Your task to perform on an android device: open the mobile data screen to see how much data has been used Image 0: 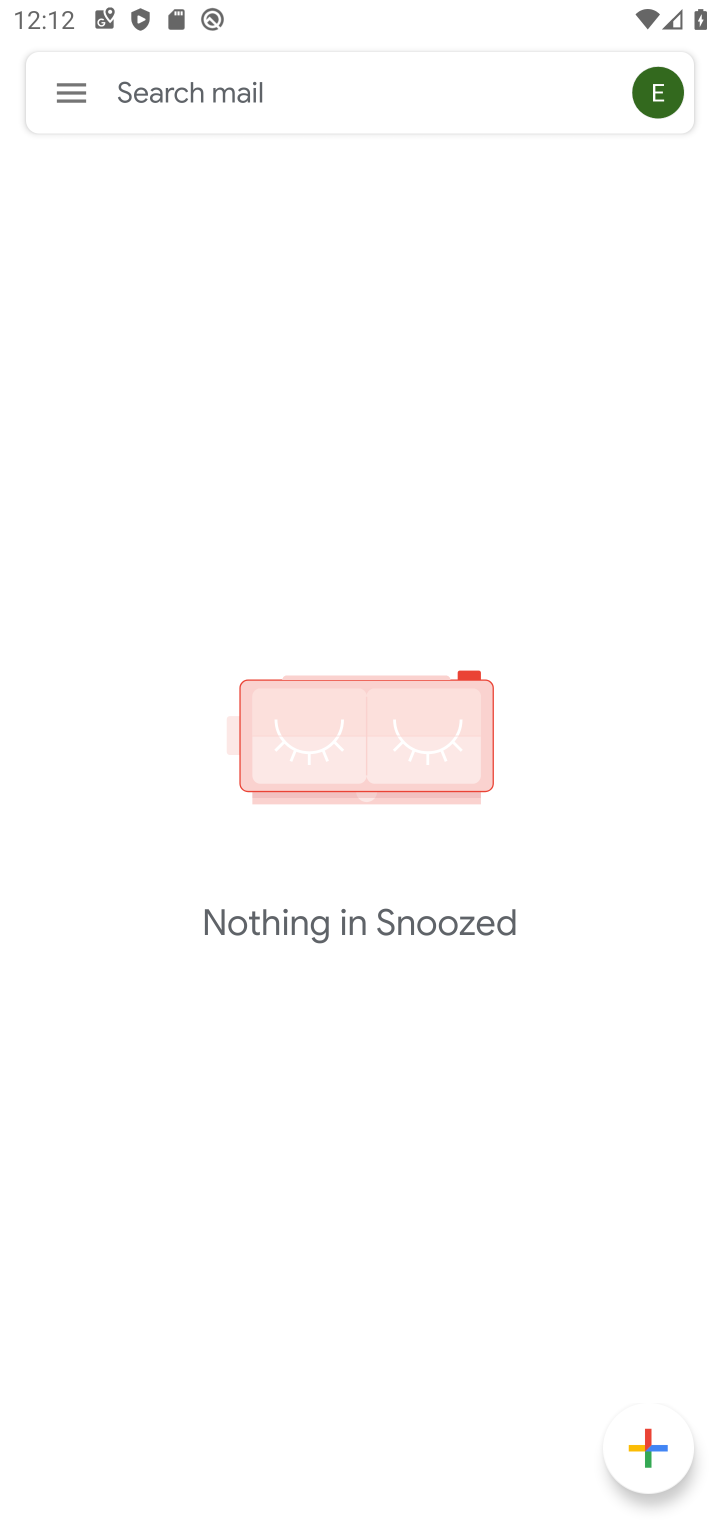
Step 0: press back button
Your task to perform on an android device: open the mobile data screen to see how much data has been used Image 1: 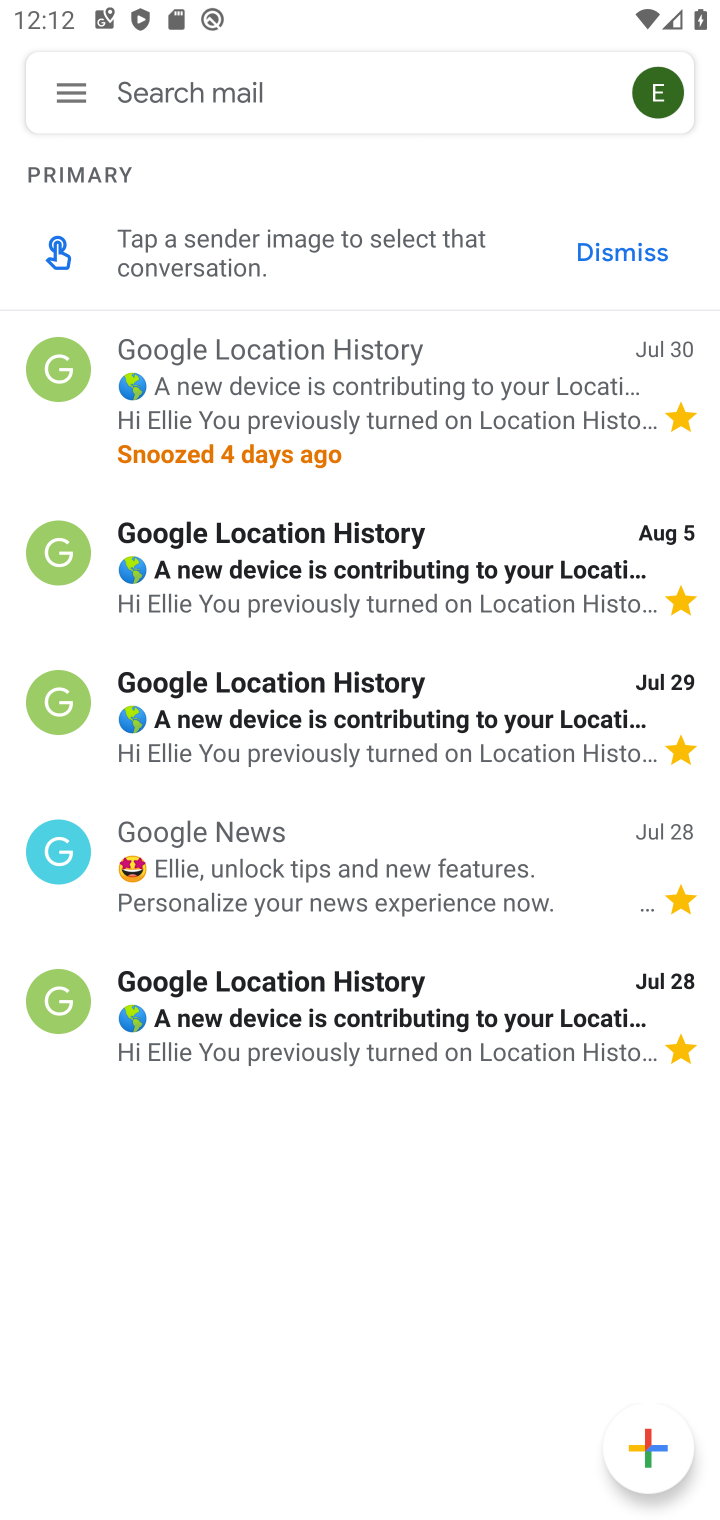
Step 1: press back button
Your task to perform on an android device: open the mobile data screen to see how much data has been used Image 2: 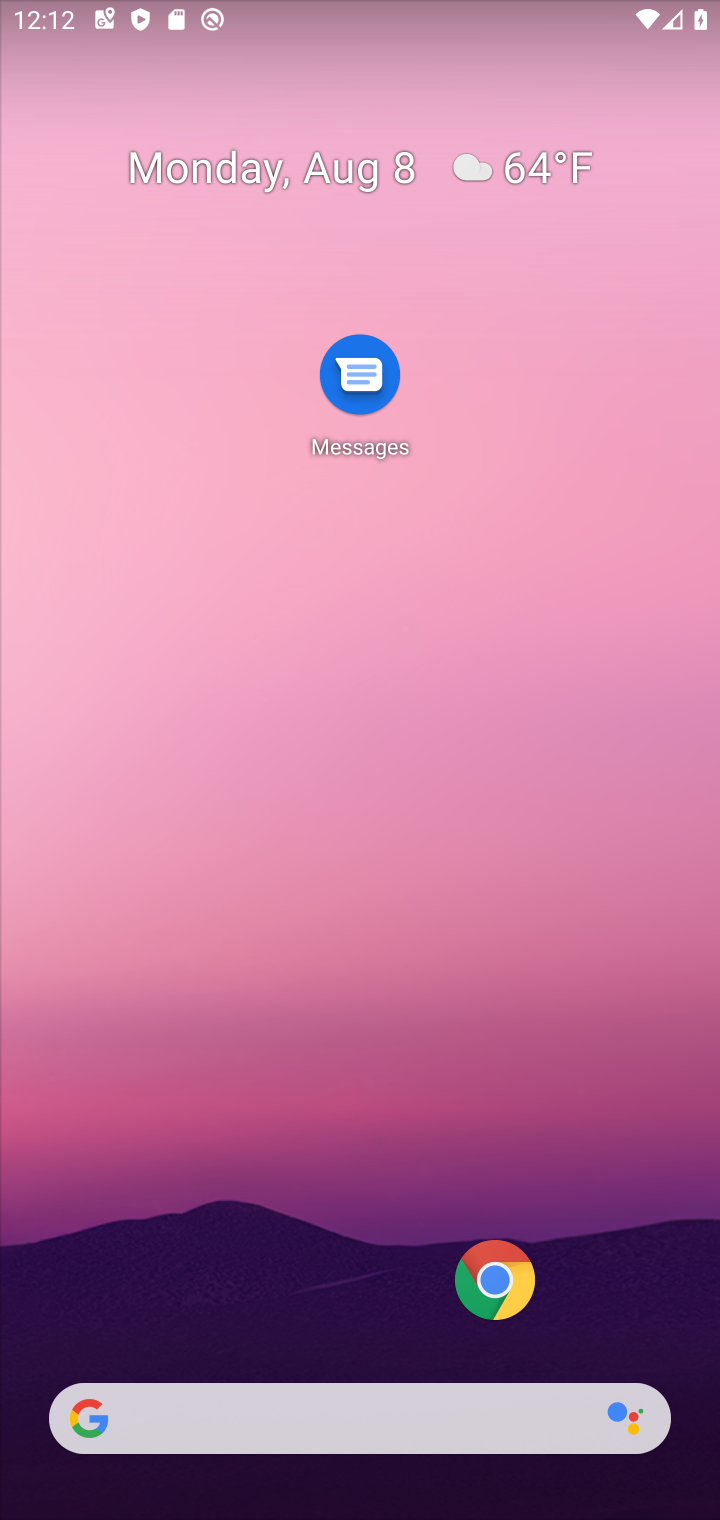
Step 2: drag from (267, 1187) to (436, 294)
Your task to perform on an android device: open the mobile data screen to see how much data has been used Image 3: 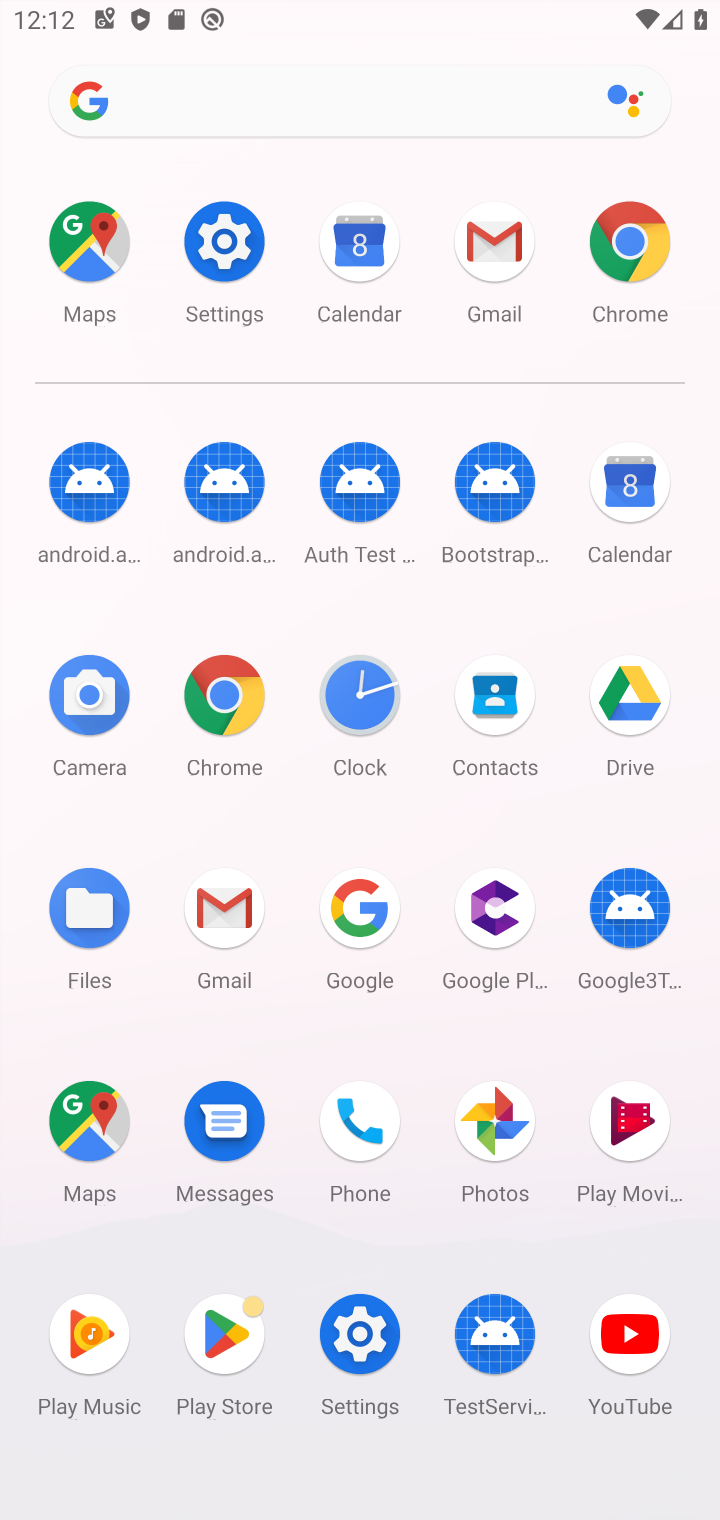
Step 3: click (236, 246)
Your task to perform on an android device: open the mobile data screen to see how much data has been used Image 4: 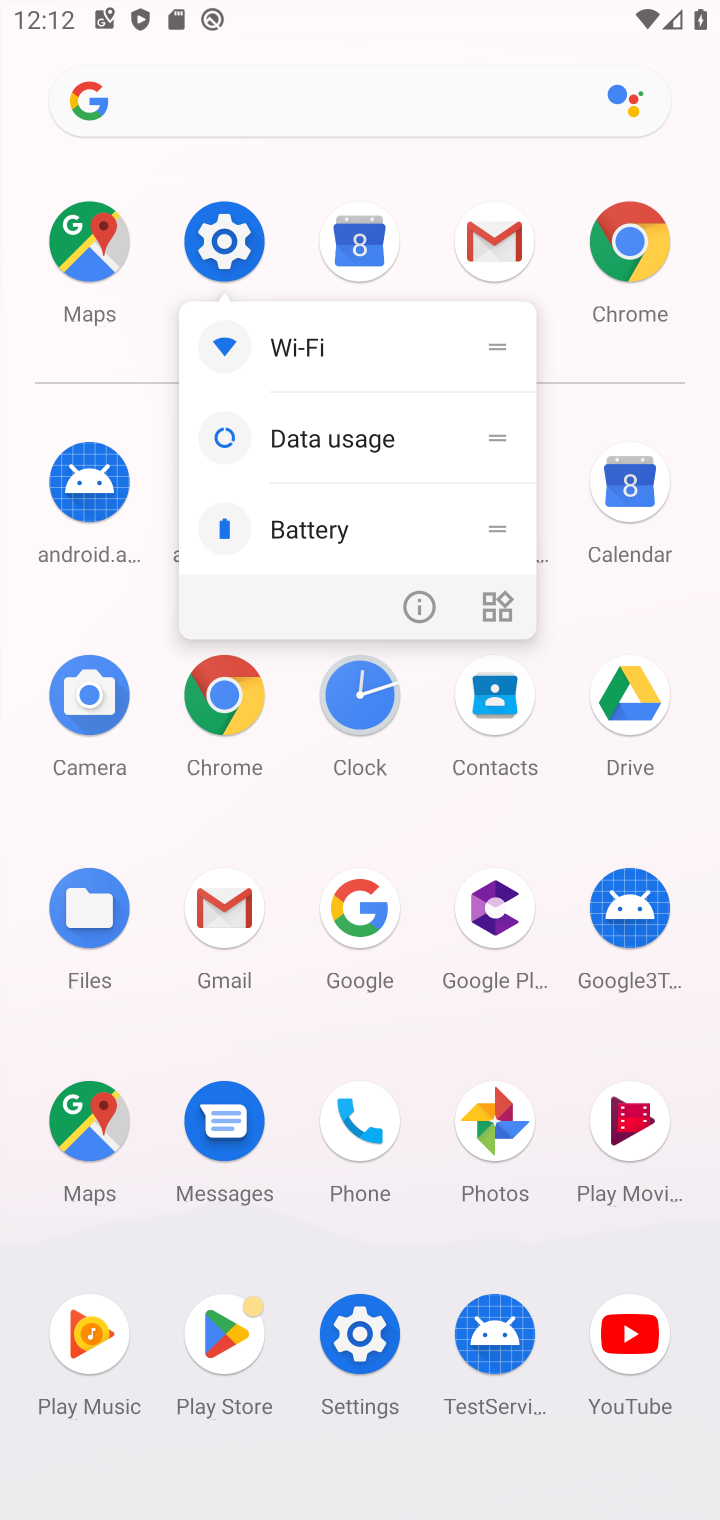
Step 4: click (224, 237)
Your task to perform on an android device: open the mobile data screen to see how much data has been used Image 5: 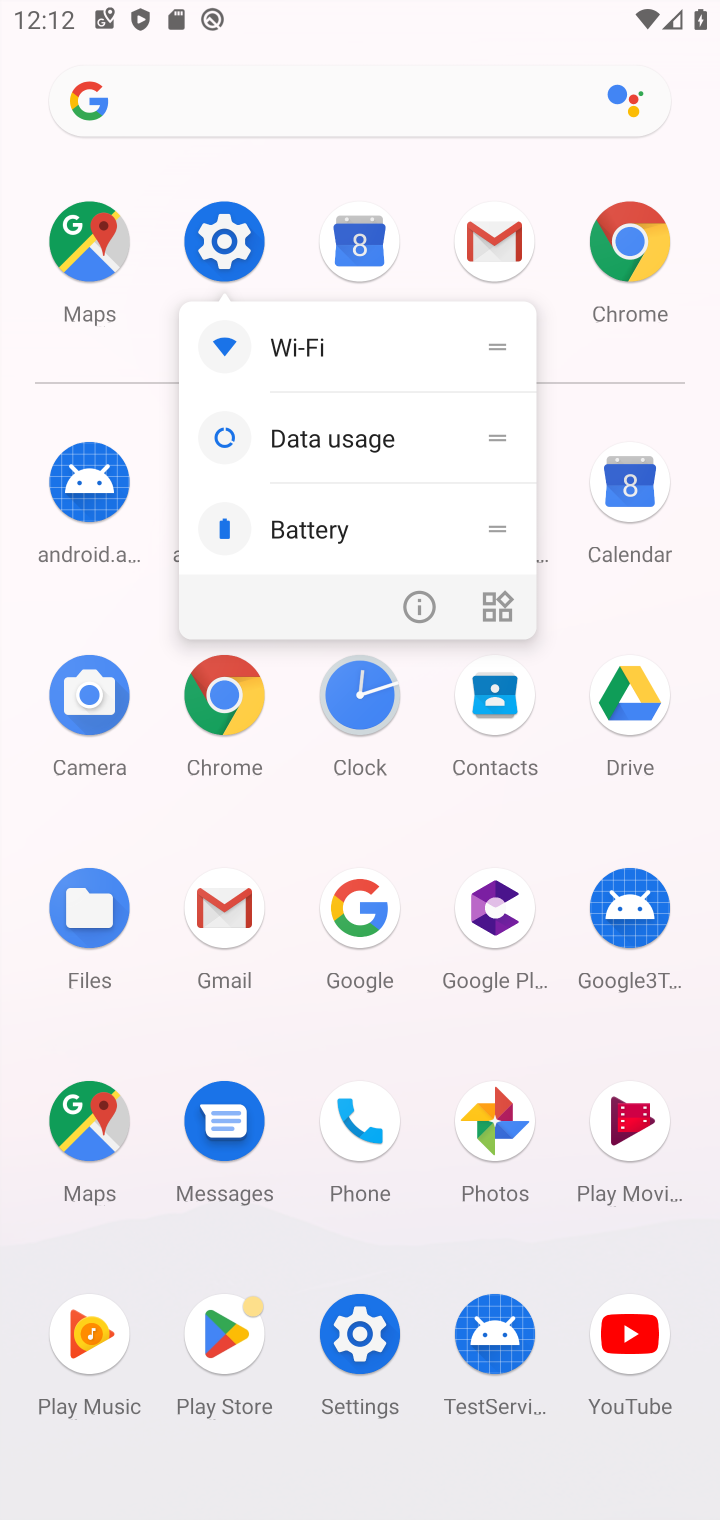
Step 5: click (228, 232)
Your task to perform on an android device: open the mobile data screen to see how much data has been used Image 6: 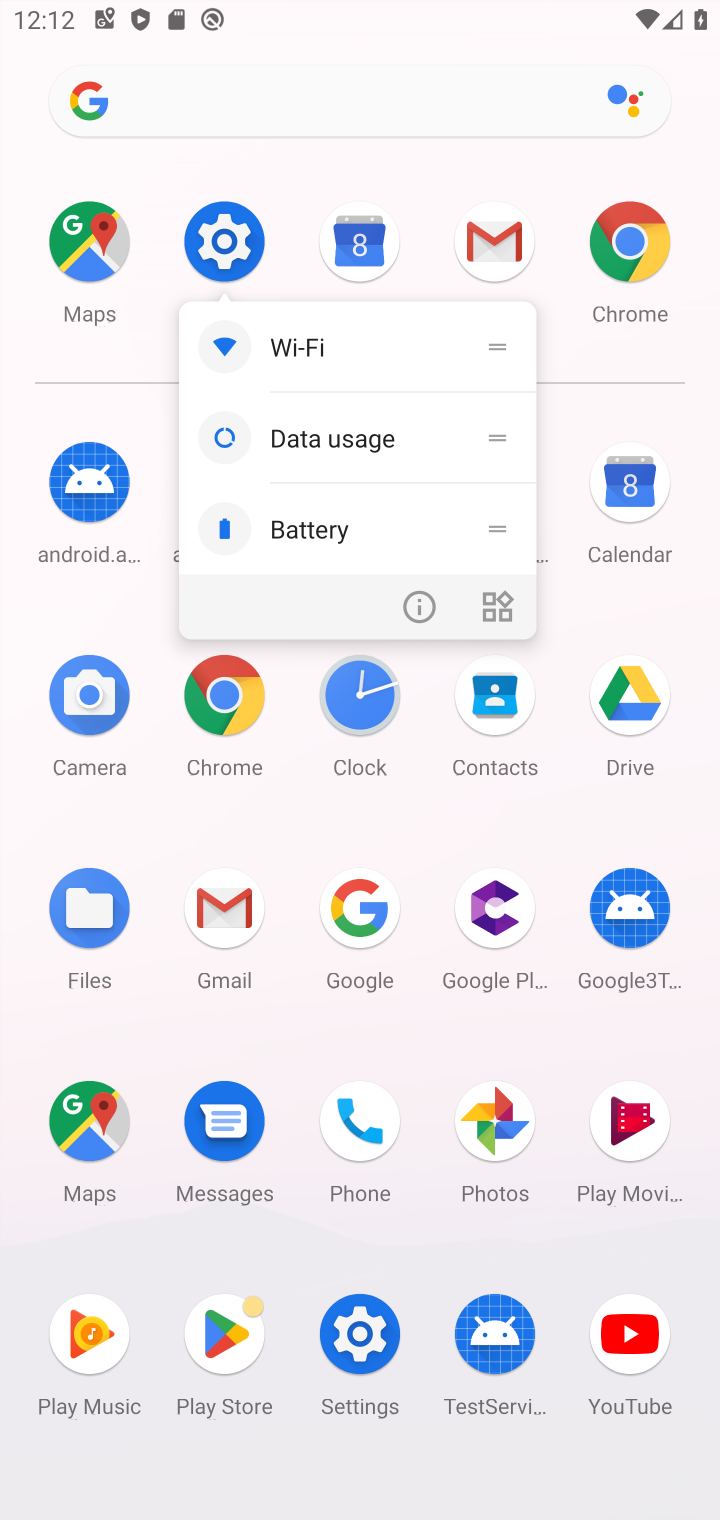
Step 6: click (236, 238)
Your task to perform on an android device: open the mobile data screen to see how much data has been used Image 7: 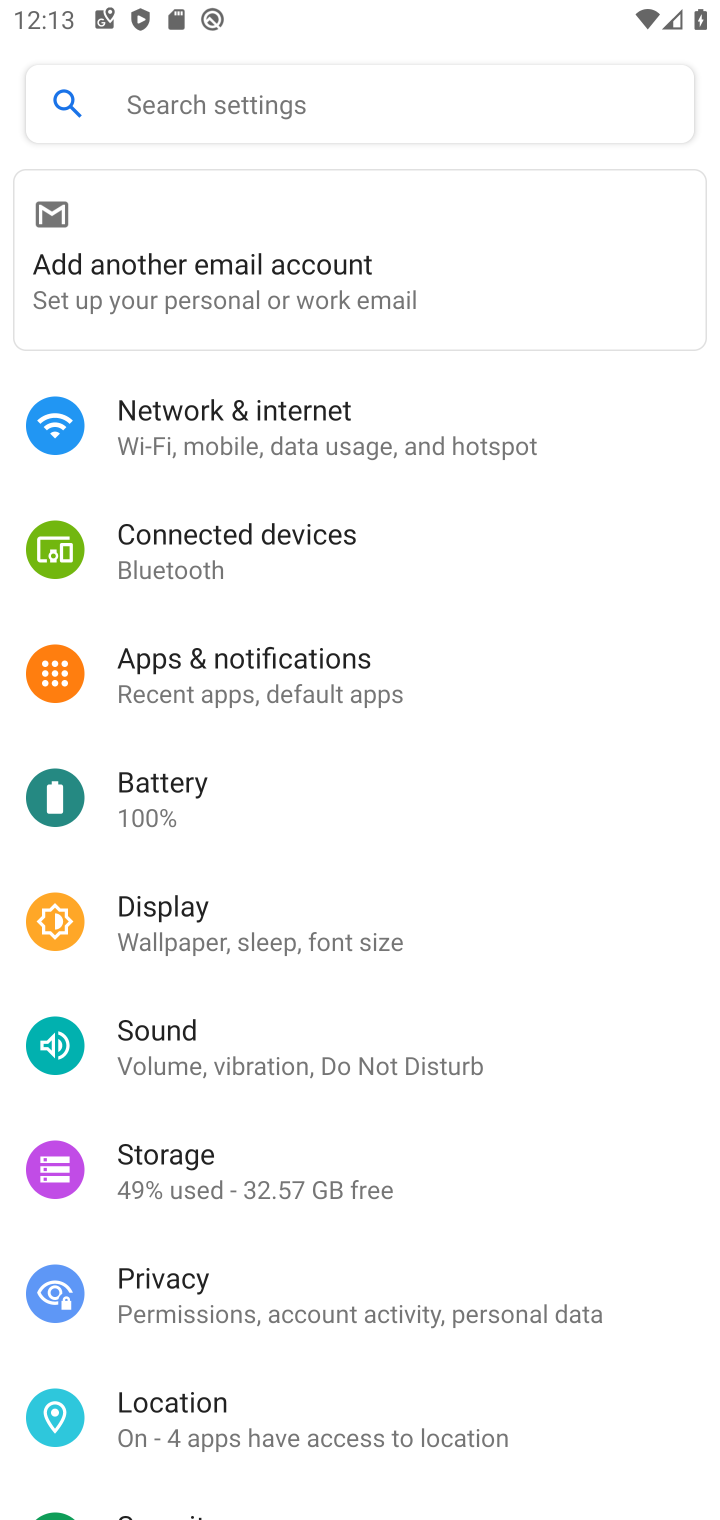
Step 7: click (334, 447)
Your task to perform on an android device: open the mobile data screen to see how much data has been used Image 8: 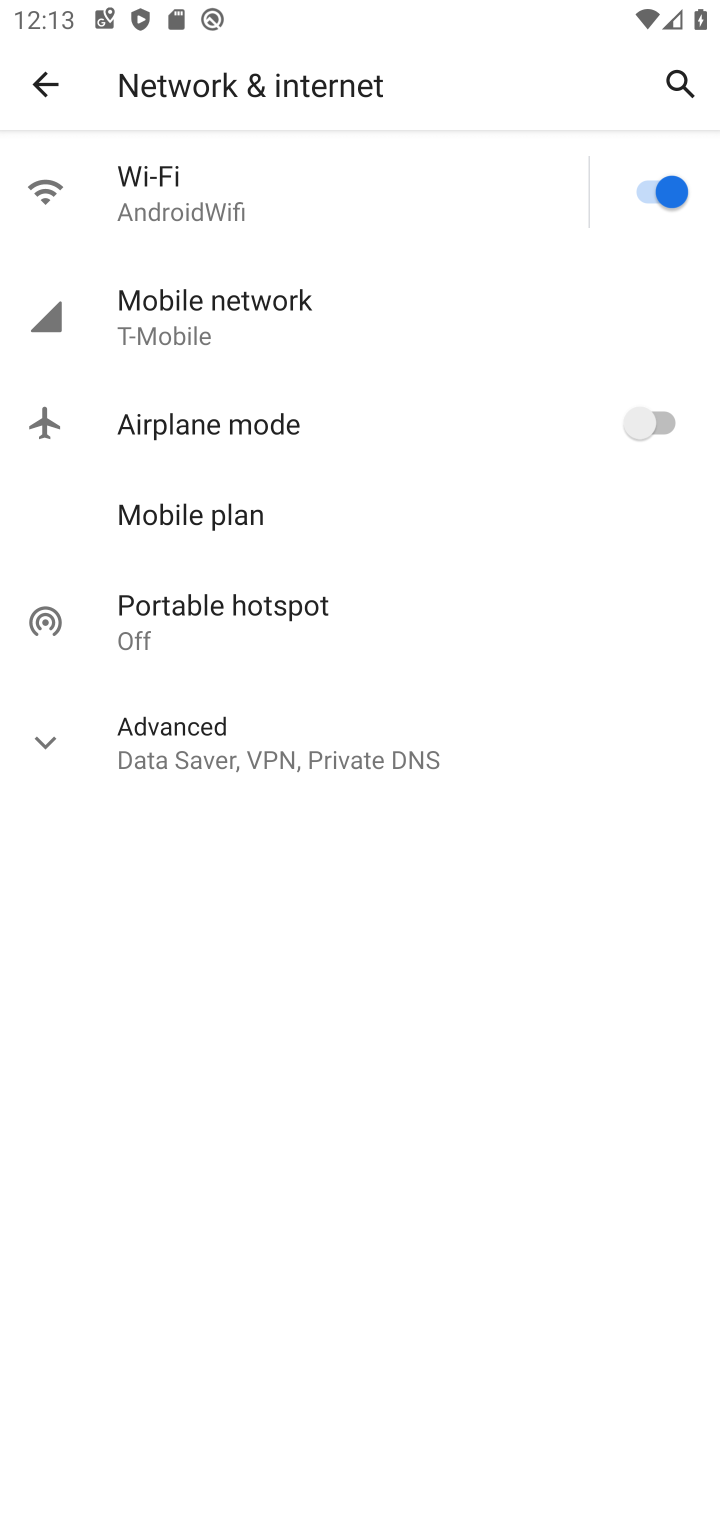
Step 8: click (239, 318)
Your task to perform on an android device: open the mobile data screen to see how much data has been used Image 9: 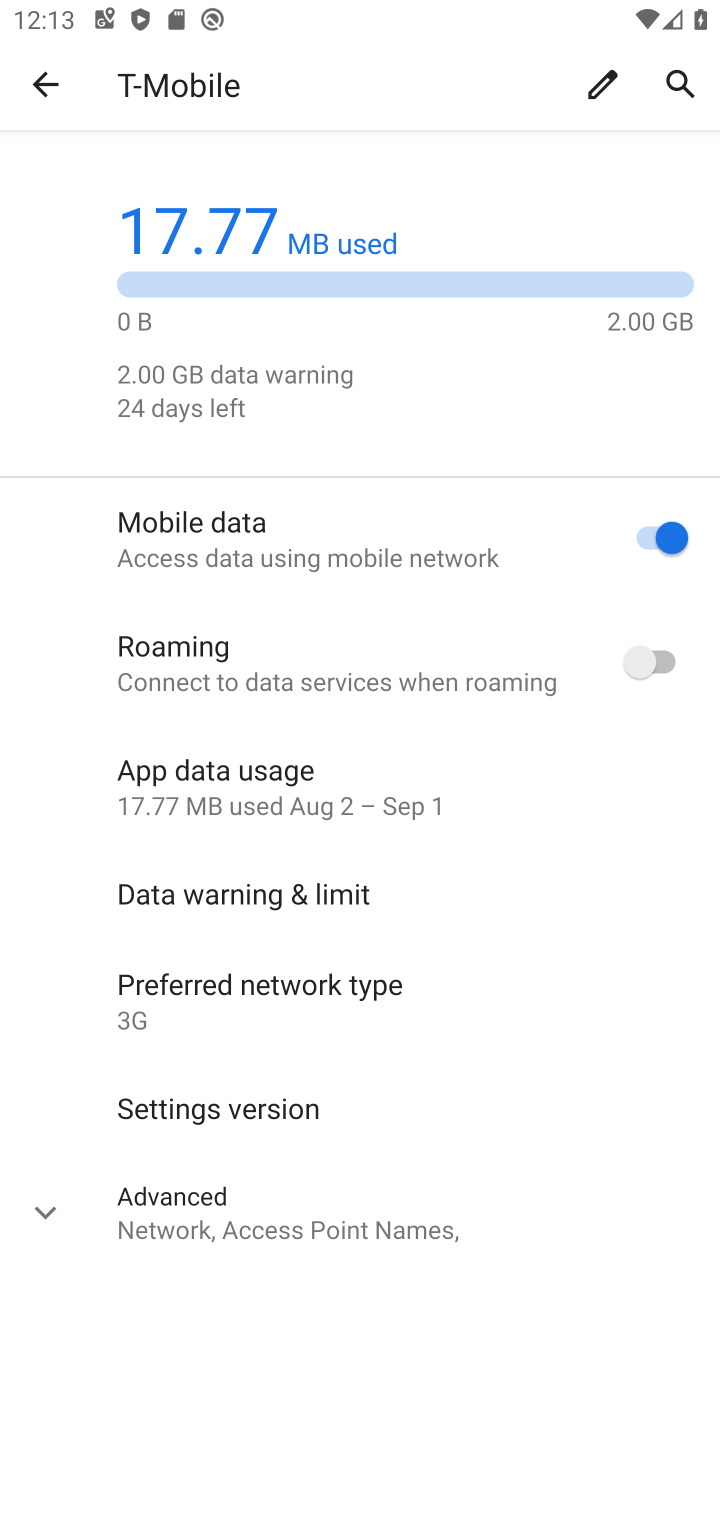
Step 9: click (306, 786)
Your task to perform on an android device: open the mobile data screen to see how much data has been used Image 10: 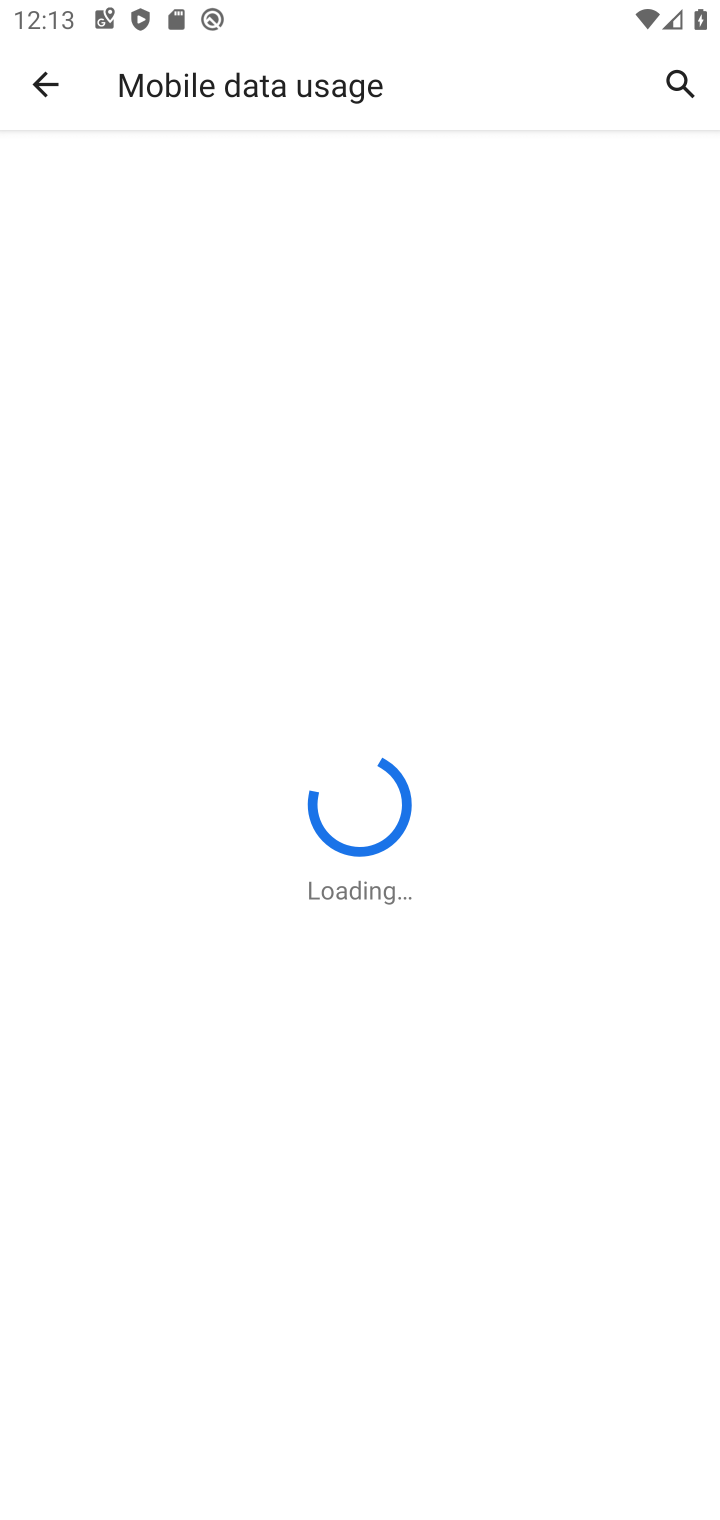
Step 10: task complete